Your task to perform on an android device: turn smart compose on in the gmail app Image 0: 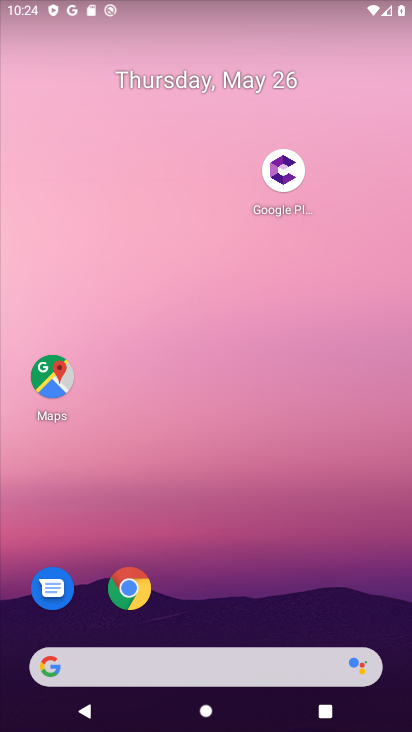
Step 0: drag from (282, 699) to (116, 70)
Your task to perform on an android device: turn smart compose on in the gmail app Image 1: 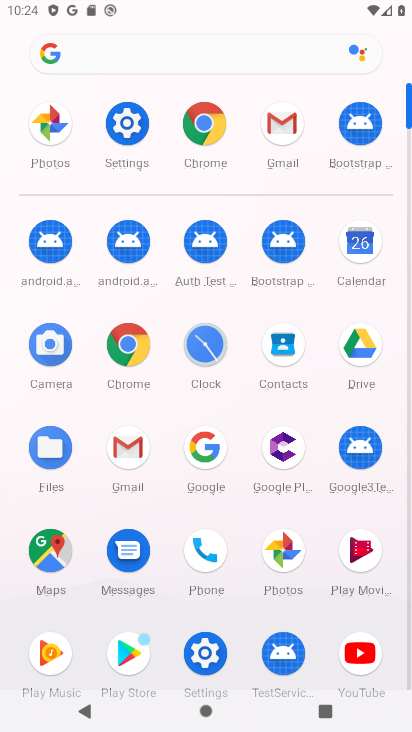
Step 1: click (132, 448)
Your task to perform on an android device: turn smart compose on in the gmail app Image 2: 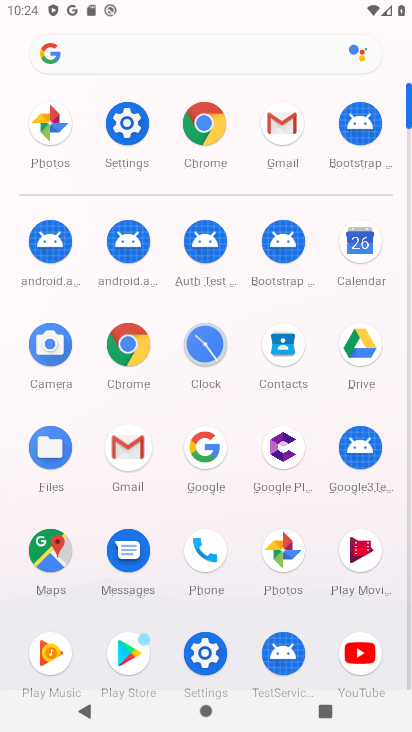
Step 2: click (132, 448)
Your task to perform on an android device: turn smart compose on in the gmail app Image 3: 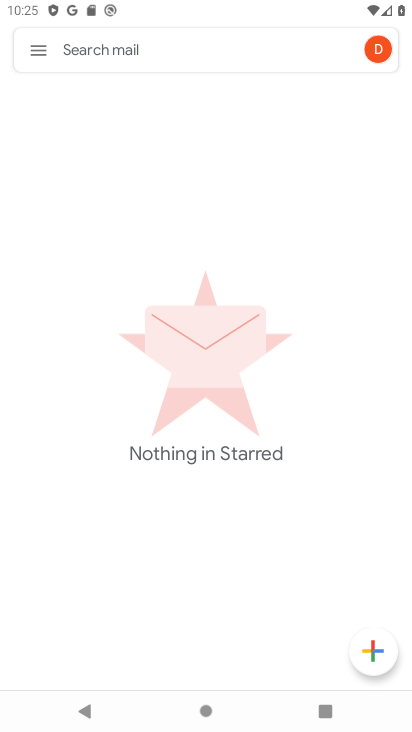
Step 3: click (36, 46)
Your task to perform on an android device: turn smart compose on in the gmail app Image 4: 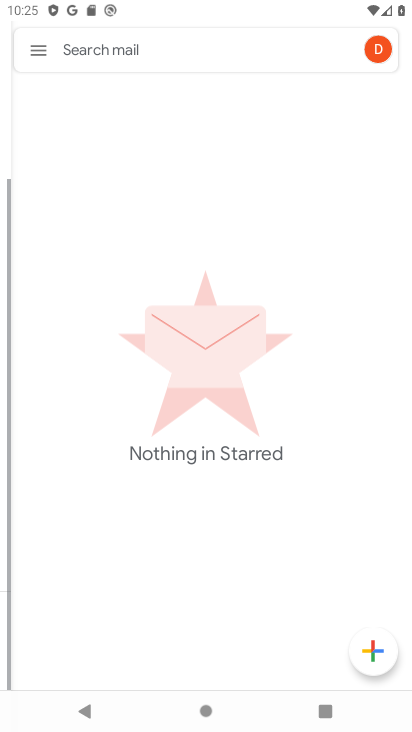
Step 4: click (36, 52)
Your task to perform on an android device: turn smart compose on in the gmail app Image 5: 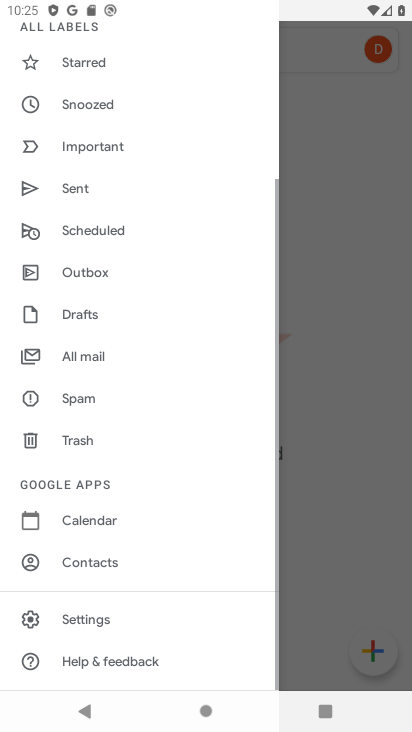
Step 5: click (35, 53)
Your task to perform on an android device: turn smart compose on in the gmail app Image 6: 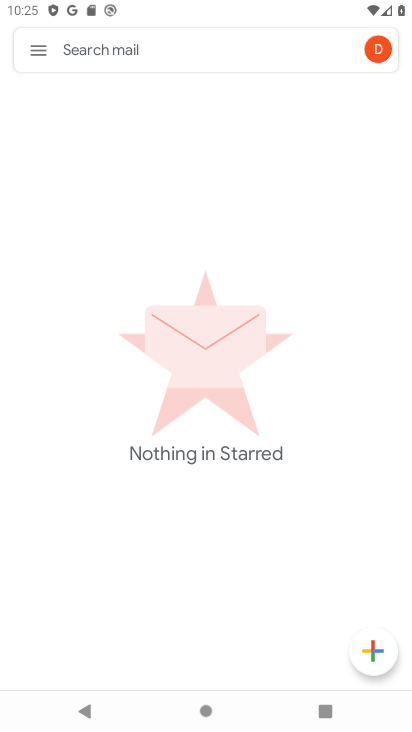
Step 6: click (26, 63)
Your task to perform on an android device: turn smart compose on in the gmail app Image 7: 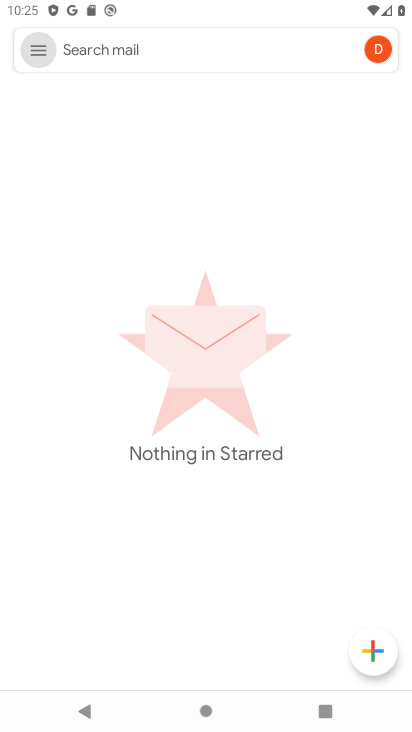
Step 7: click (30, 59)
Your task to perform on an android device: turn smart compose on in the gmail app Image 8: 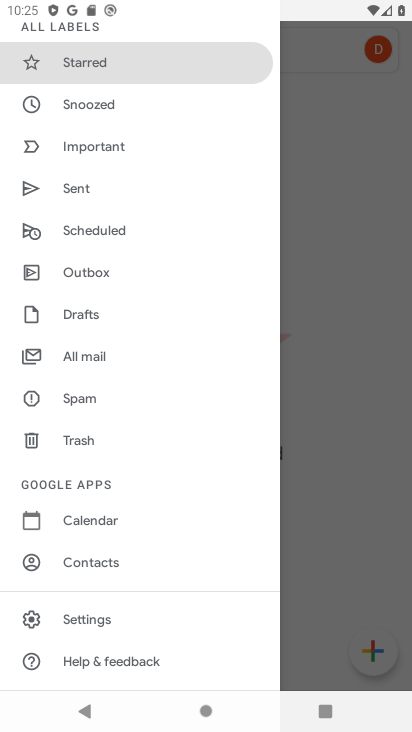
Step 8: click (72, 611)
Your task to perform on an android device: turn smart compose on in the gmail app Image 9: 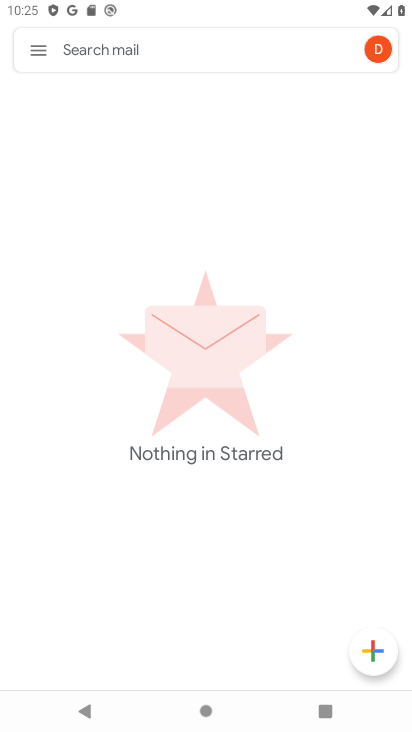
Step 9: click (72, 613)
Your task to perform on an android device: turn smart compose on in the gmail app Image 10: 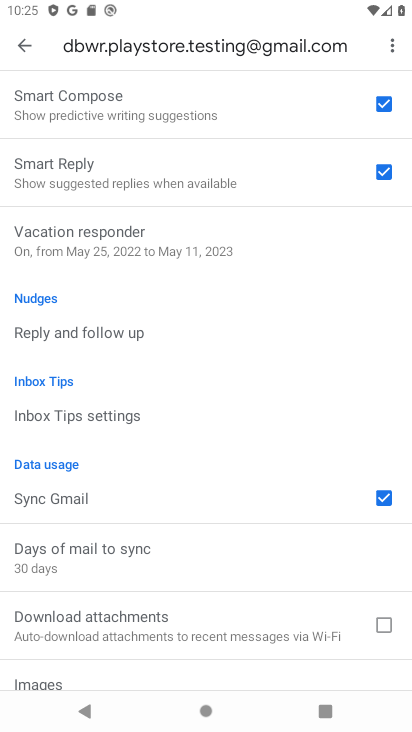
Step 10: task complete